Your task to perform on an android device: check data usage Image 0: 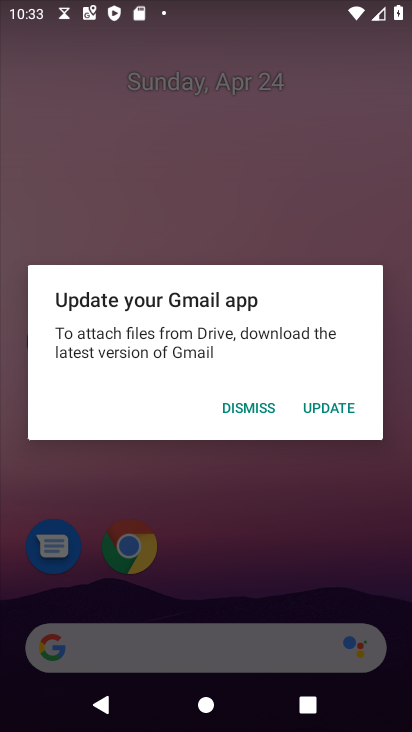
Step 0: press home button
Your task to perform on an android device: check data usage Image 1: 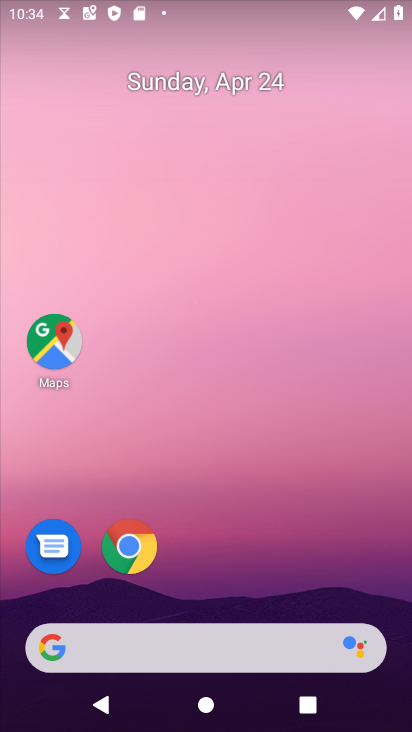
Step 1: drag from (342, 592) to (360, 2)
Your task to perform on an android device: check data usage Image 2: 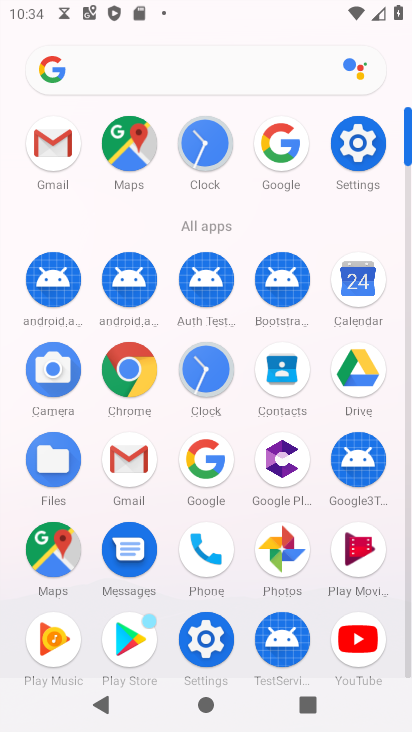
Step 2: click (356, 147)
Your task to perform on an android device: check data usage Image 3: 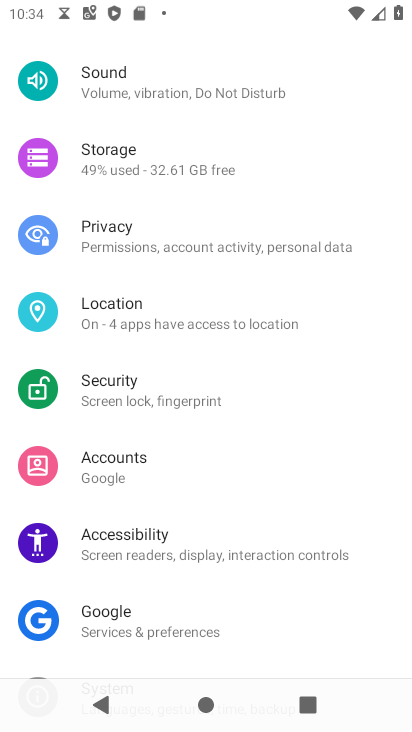
Step 3: drag from (356, 147) to (355, 552)
Your task to perform on an android device: check data usage Image 4: 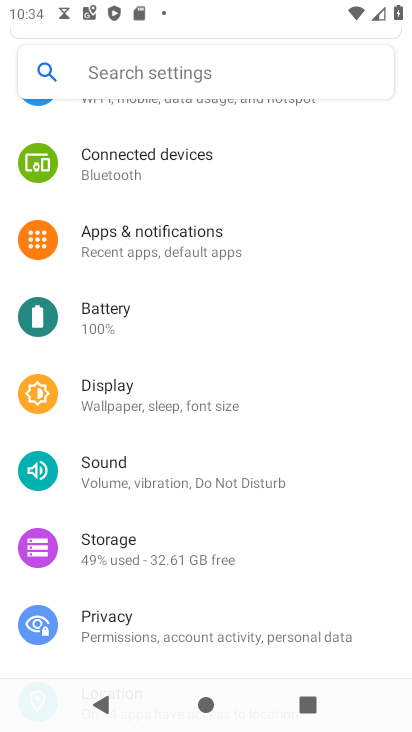
Step 4: drag from (321, 256) to (305, 527)
Your task to perform on an android device: check data usage Image 5: 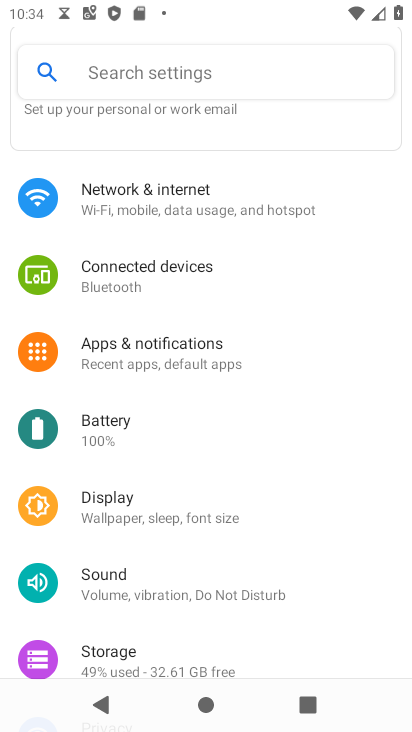
Step 5: click (191, 206)
Your task to perform on an android device: check data usage Image 6: 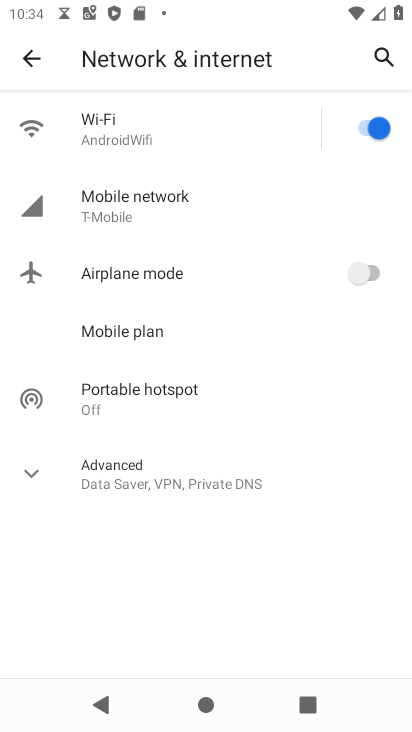
Step 6: click (129, 222)
Your task to perform on an android device: check data usage Image 7: 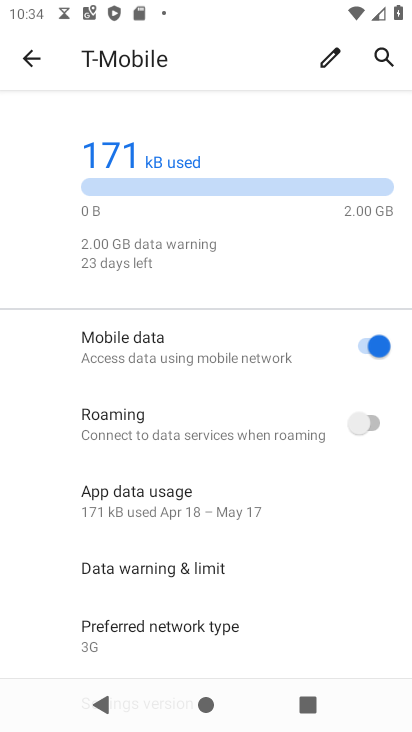
Step 7: drag from (217, 463) to (217, 277)
Your task to perform on an android device: check data usage Image 8: 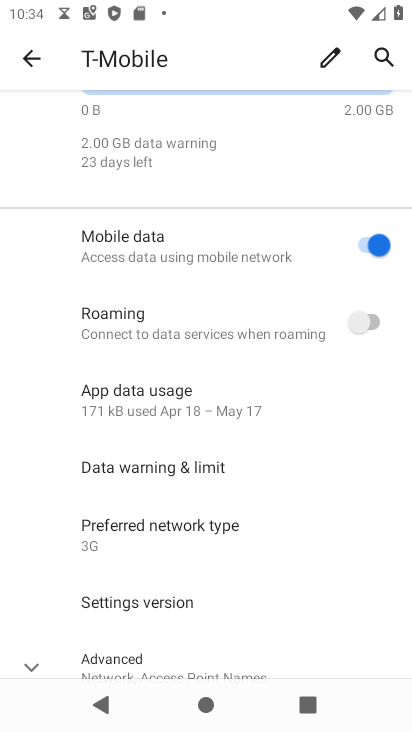
Step 8: click (126, 418)
Your task to perform on an android device: check data usage Image 9: 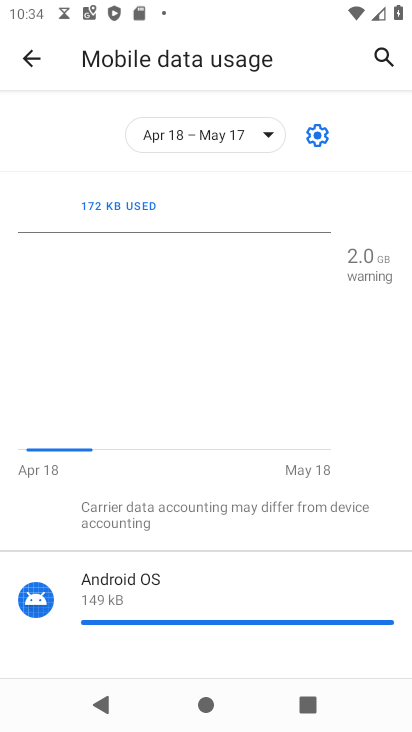
Step 9: task complete